Your task to perform on an android device: What's on my calendar tomorrow? Image 0: 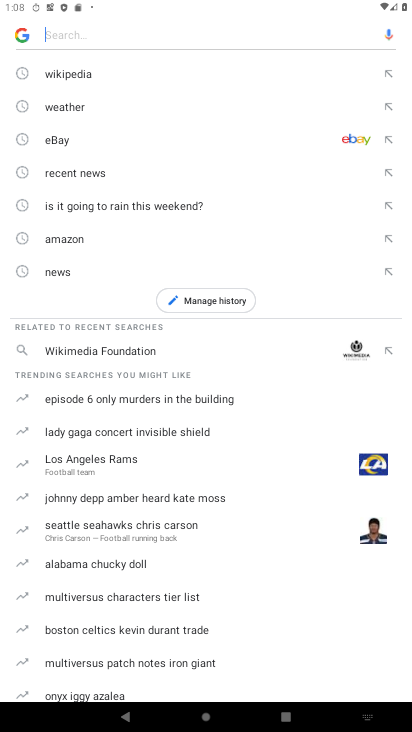
Step 0: press home button
Your task to perform on an android device: What's on my calendar tomorrow? Image 1: 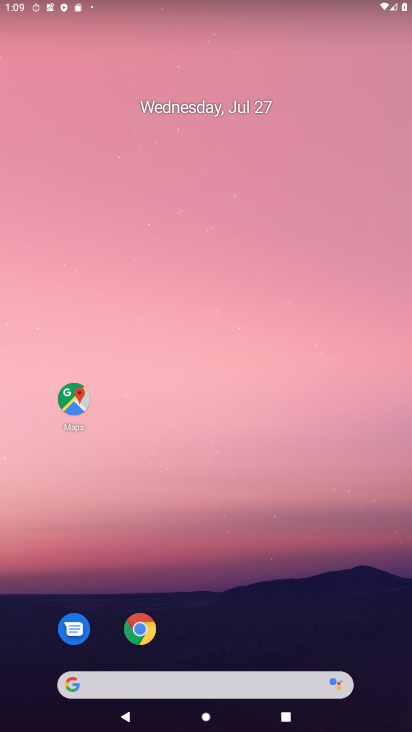
Step 1: drag from (394, 645) to (176, 8)
Your task to perform on an android device: What's on my calendar tomorrow? Image 2: 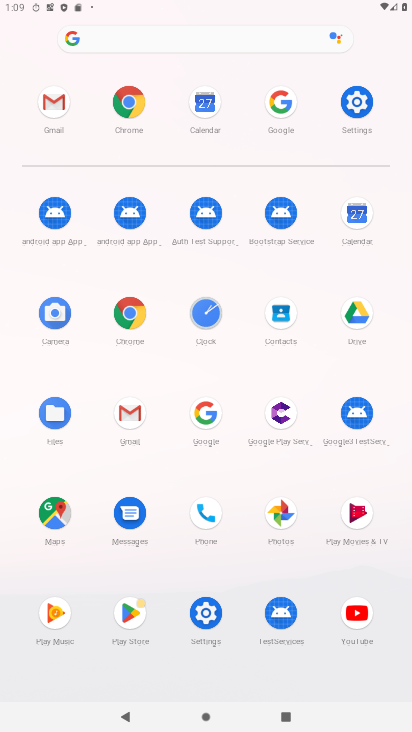
Step 2: click (359, 223)
Your task to perform on an android device: What's on my calendar tomorrow? Image 3: 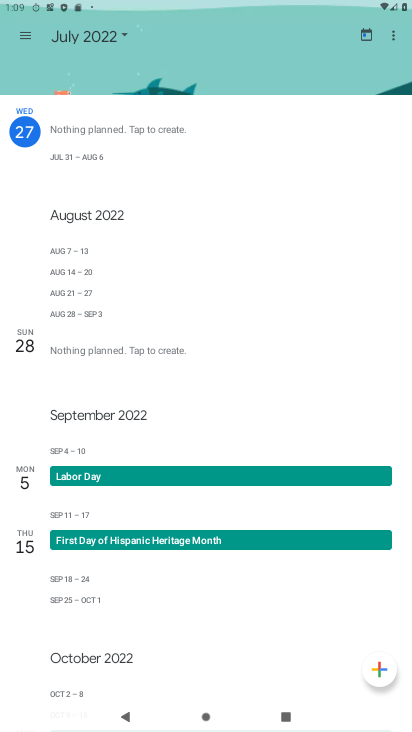
Step 3: task complete